Your task to perform on an android device: allow cookies in the chrome app Image 0: 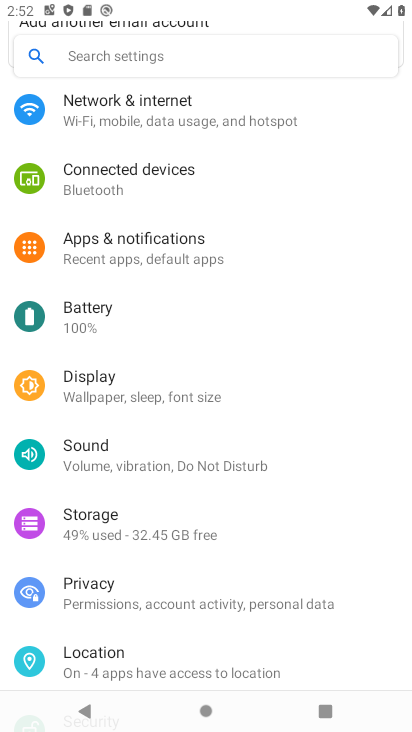
Step 0: press home button
Your task to perform on an android device: allow cookies in the chrome app Image 1: 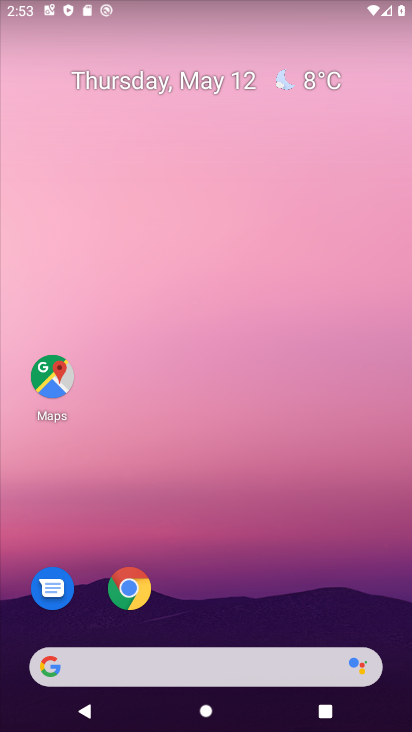
Step 1: click (138, 599)
Your task to perform on an android device: allow cookies in the chrome app Image 2: 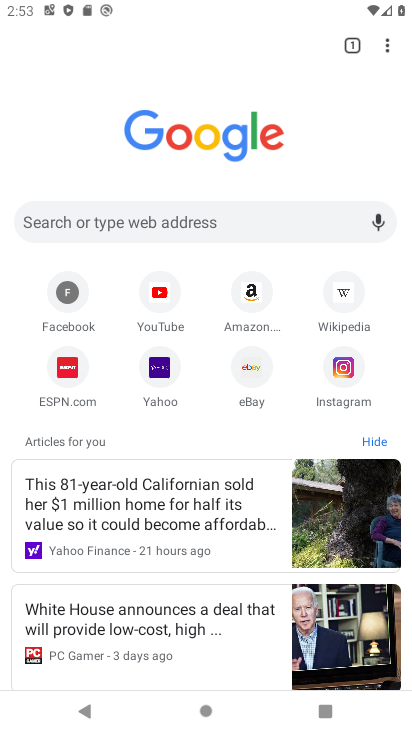
Step 2: click (386, 54)
Your task to perform on an android device: allow cookies in the chrome app Image 3: 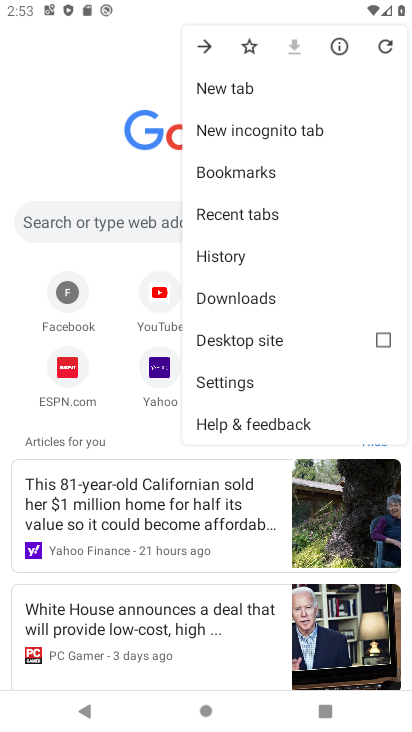
Step 3: click (276, 377)
Your task to perform on an android device: allow cookies in the chrome app Image 4: 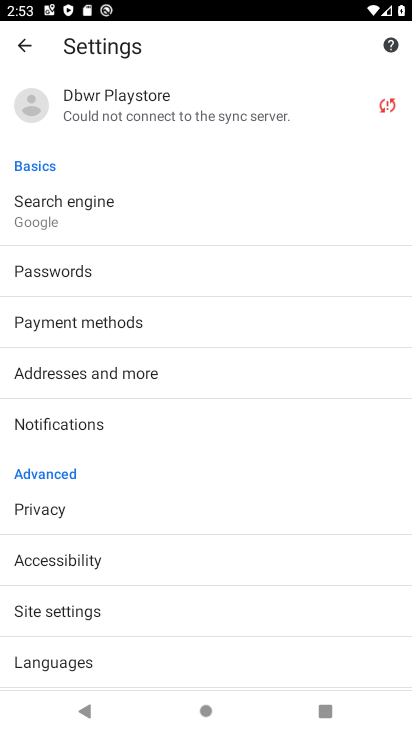
Step 4: drag from (193, 485) to (181, 287)
Your task to perform on an android device: allow cookies in the chrome app Image 5: 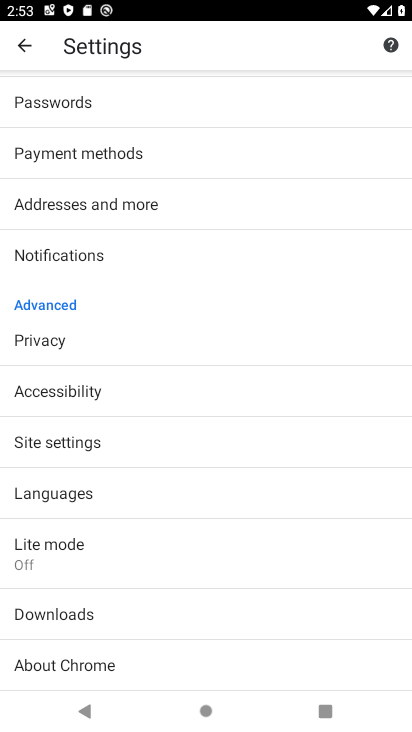
Step 5: click (109, 447)
Your task to perform on an android device: allow cookies in the chrome app Image 6: 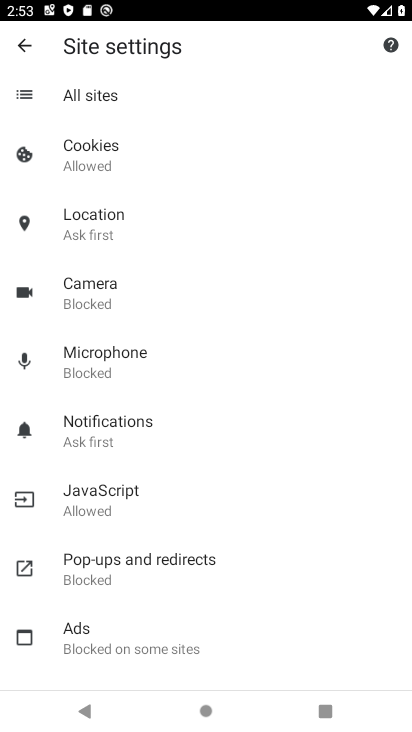
Step 6: click (111, 171)
Your task to perform on an android device: allow cookies in the chrome app Image 7: 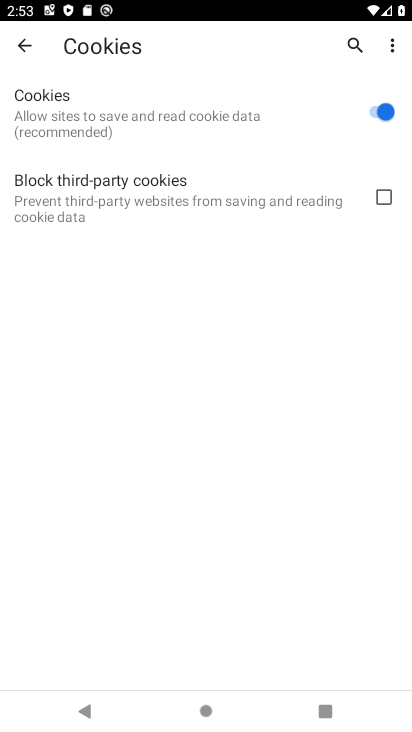
Step 7: task complete